Your task to perform on an android device: Go to wifi settings Image 0: 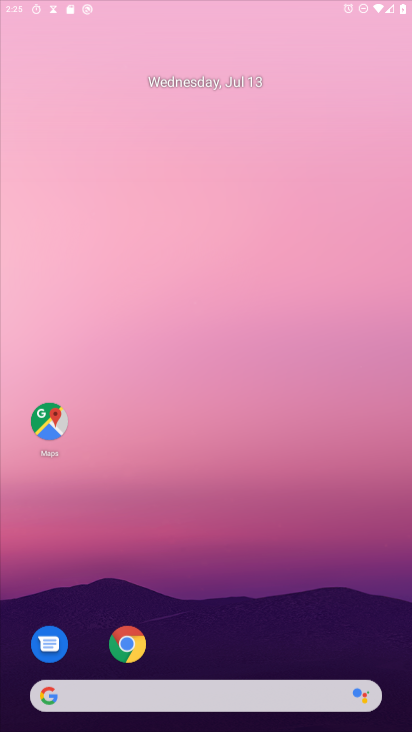
Step 0: press home button
Your task to perform on an android device: Go to wifi settings Image 1: 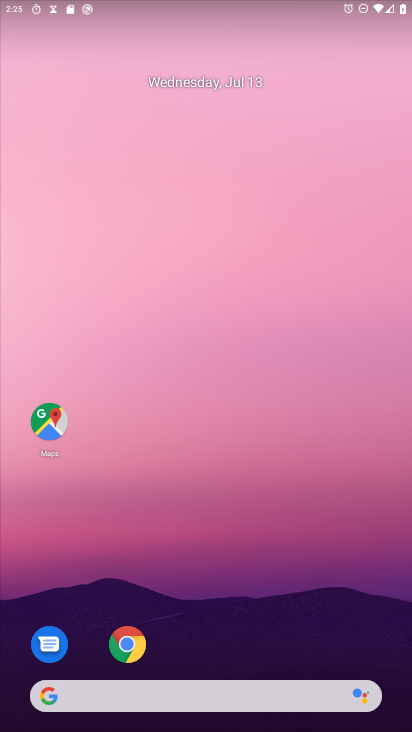
Step 1: drag from (250, 614) to (240, 41)
Your task to perform on an android device: Go to wifi settings Image 2: 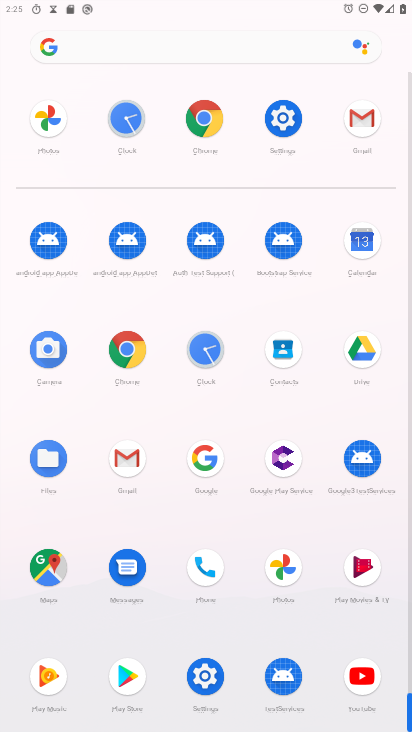
Step 2: click (285, 117)
Your task to perform on an android device: Go to wifi settings Image 3: 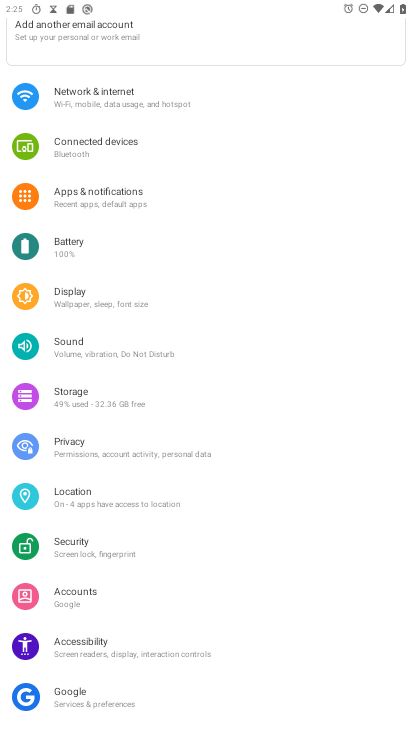
Step 3: click (148, 108)
Your task to perform on an android device: Go to wifi settings Image 4: 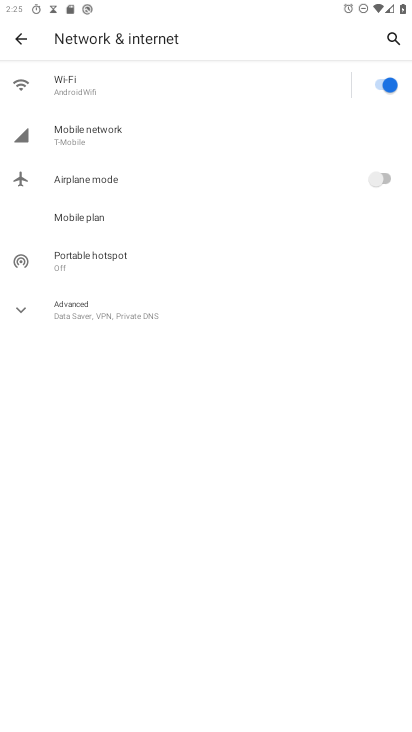
Step 4: click (146, 87)
Your task to perform on an android device: Go to wifi settings Image 5: 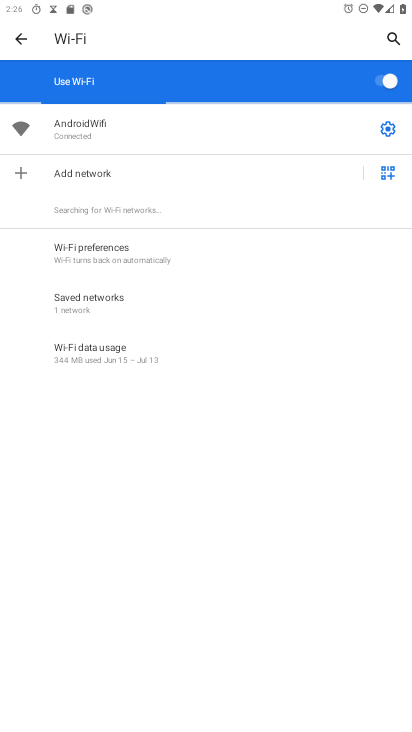
Step 5: task complete